Your task to perform on an android device: Go to ESPN.com Image 0: 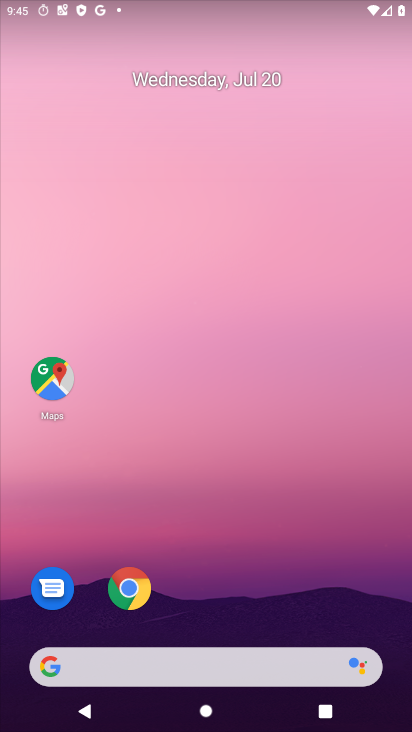
Step 0: drag from (208, 654) to (332, 0)
Your task to perform on an android device: Go to ESPN.com Image 1: 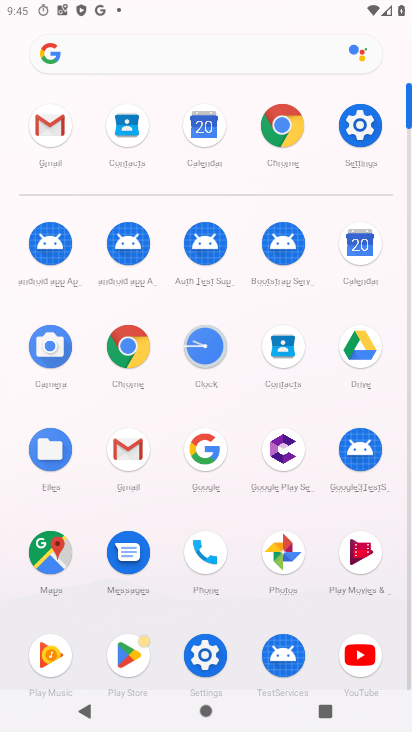
Step 1: click (122, 358)
Your task to perform on an android device: Go to ESPN.com Image 2: 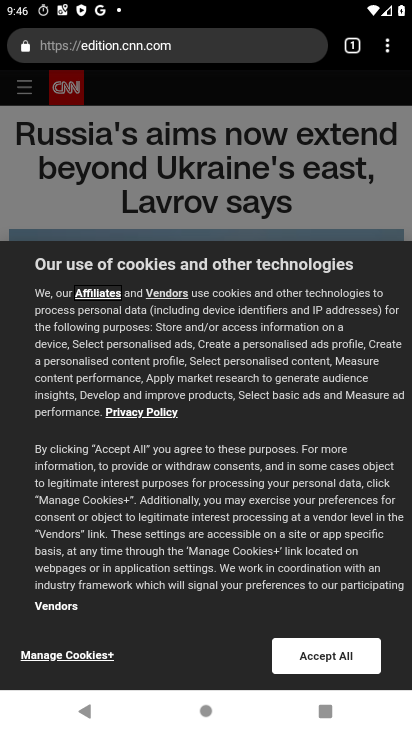
Step 2: click (189, 64)
Your task to perform on an android device: Go to ESPN.com Image 3: 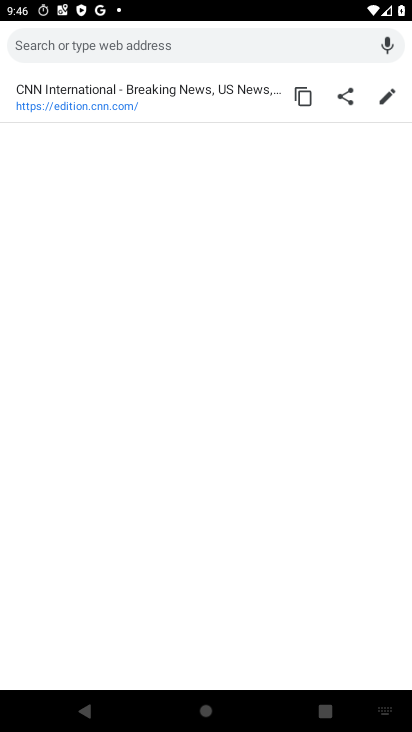
Step 3: type "espn"
Your task to perform on an android device: Go to ESPN.com Image 4: 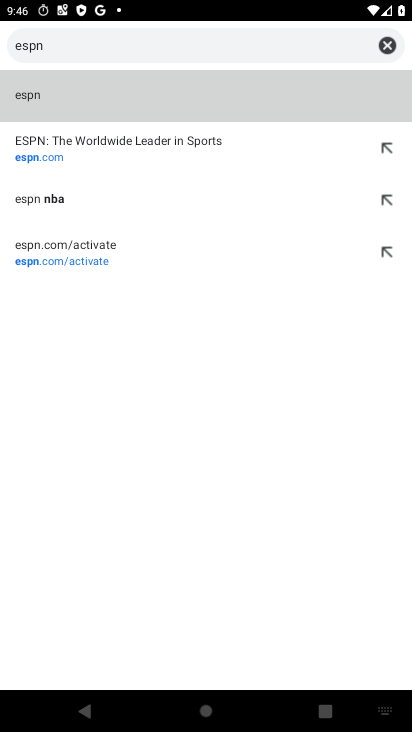
Step 4: click (46, 146)
Your task to perform on an android device: Go to ESPN.com Image 5: 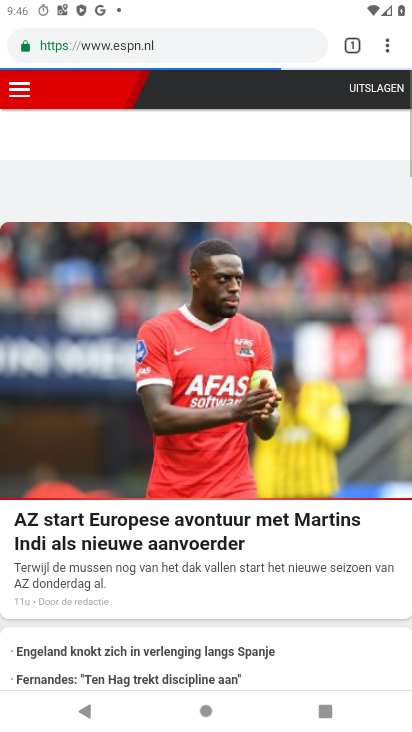
Step 5: task complete